Your task to perform on an android device: Open the stopwatch Image 0: 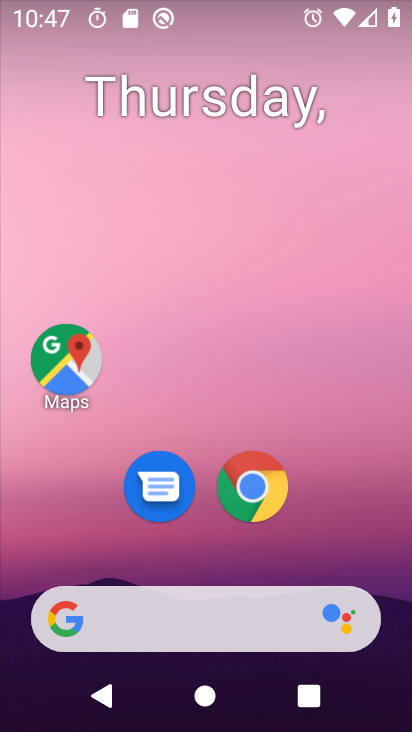
Step 0: drag from (382, 593) to (405, 96)
Your task to perform on an android device: Open the stopwatch Image 1: 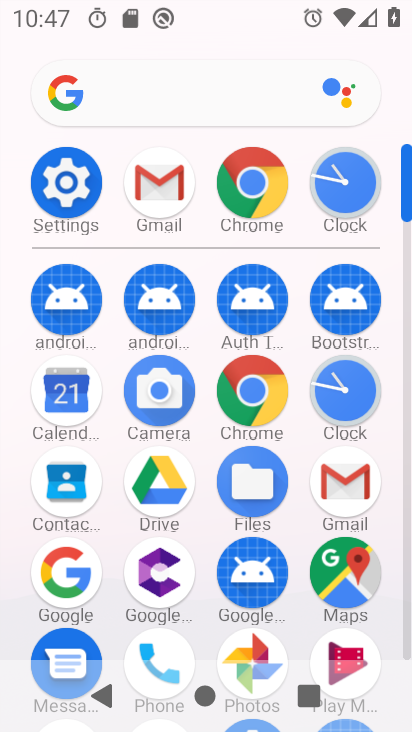
Step 1: click (358, 392)
Your task to perform on an android device: Open the stopwatch Image 2: 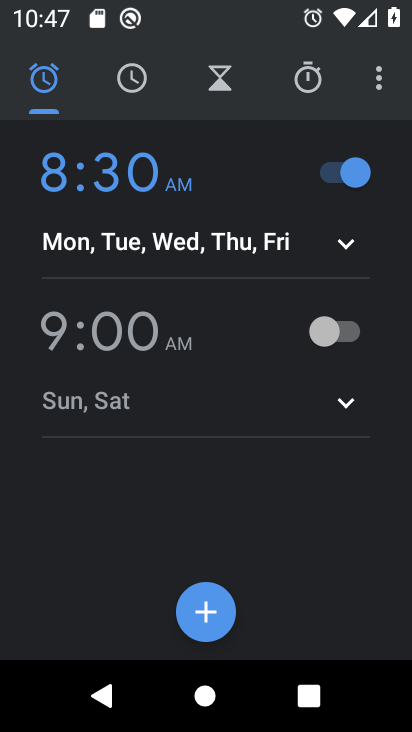
Step 2: click (310, 77)
Your task to perform on an android device: Open the stopwatch Image 3: 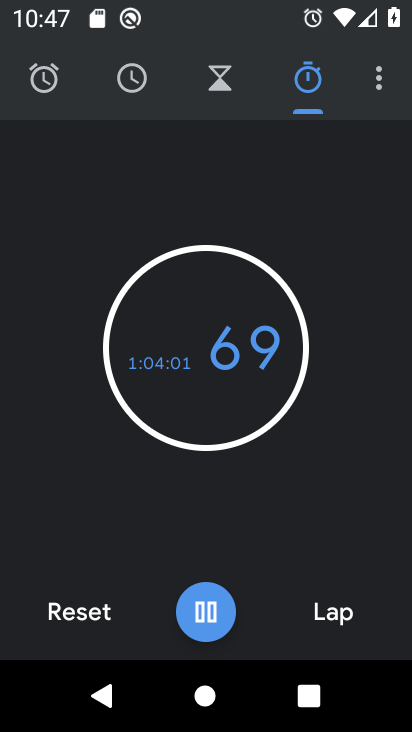
Step 3: task complete